Your task to perform on an android device: Add "panasonic triple a" to the cart on amazon Image 0: 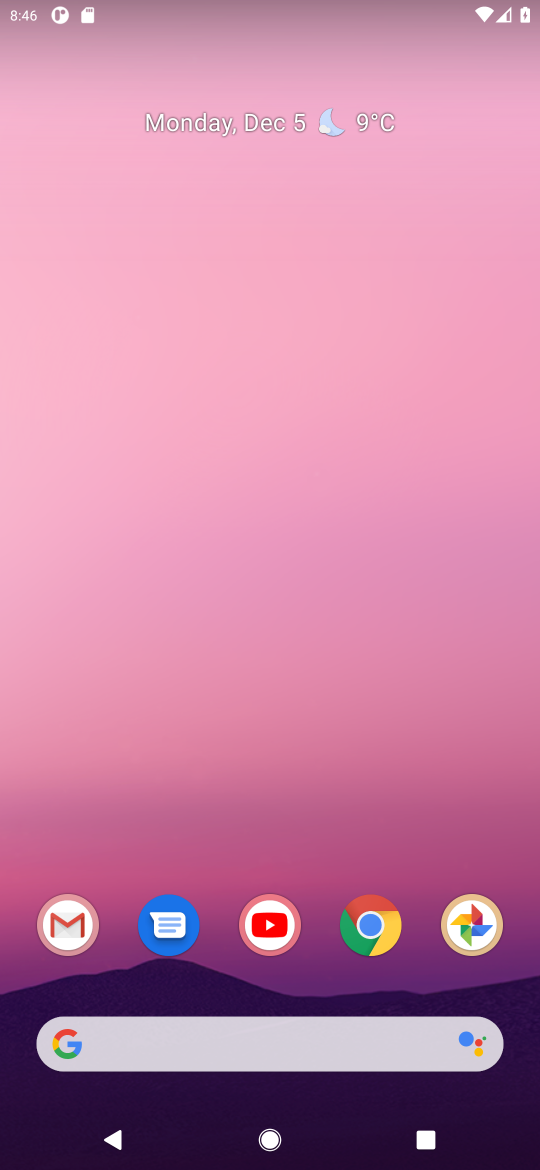
Step 0: click (363, 932)
Your task to perform on an android device: Add "panasonic triple a" to the cart on amazon Image 1: 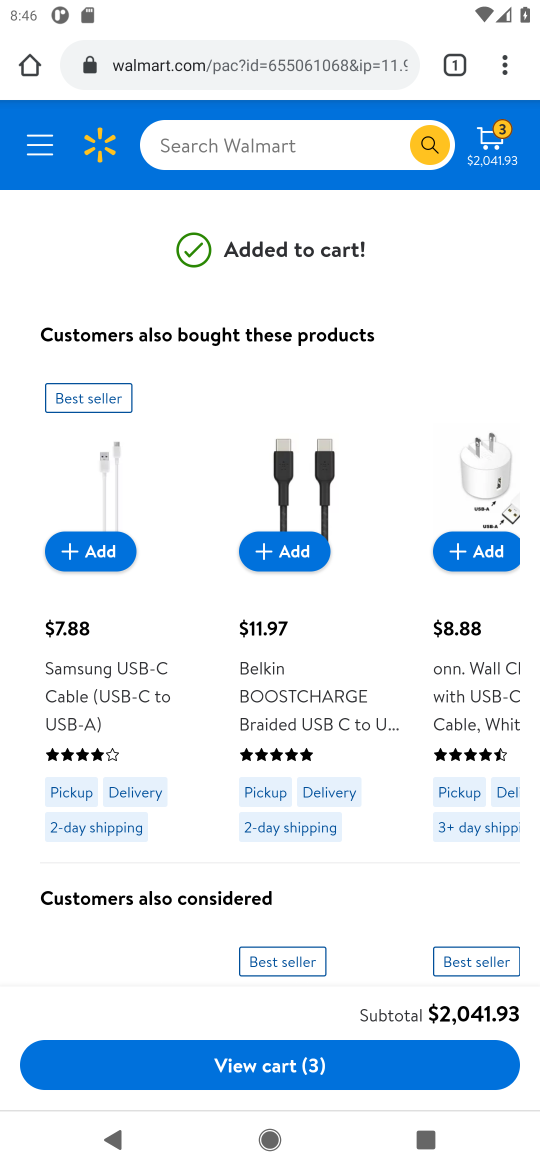
Step 1: click (234, 68)
Your task to perform on an android device: Add "panasonic triple a" to the cart on amazon Image 2: 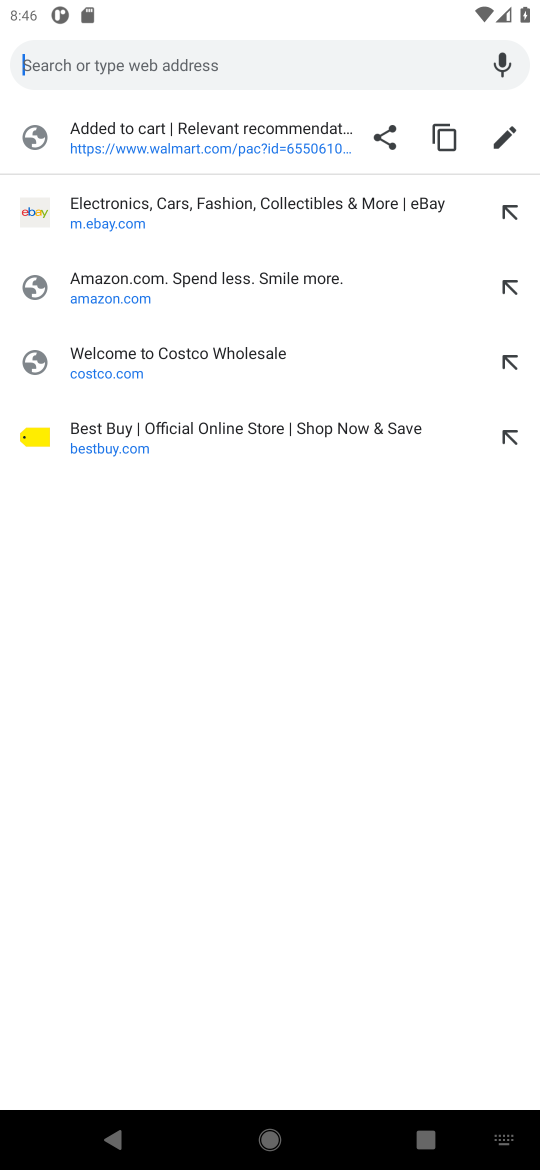
Step 2: click (102, 297)
Your task to perform on an android device: Add "panasonic triple a" to the cart on amazon Image 3: 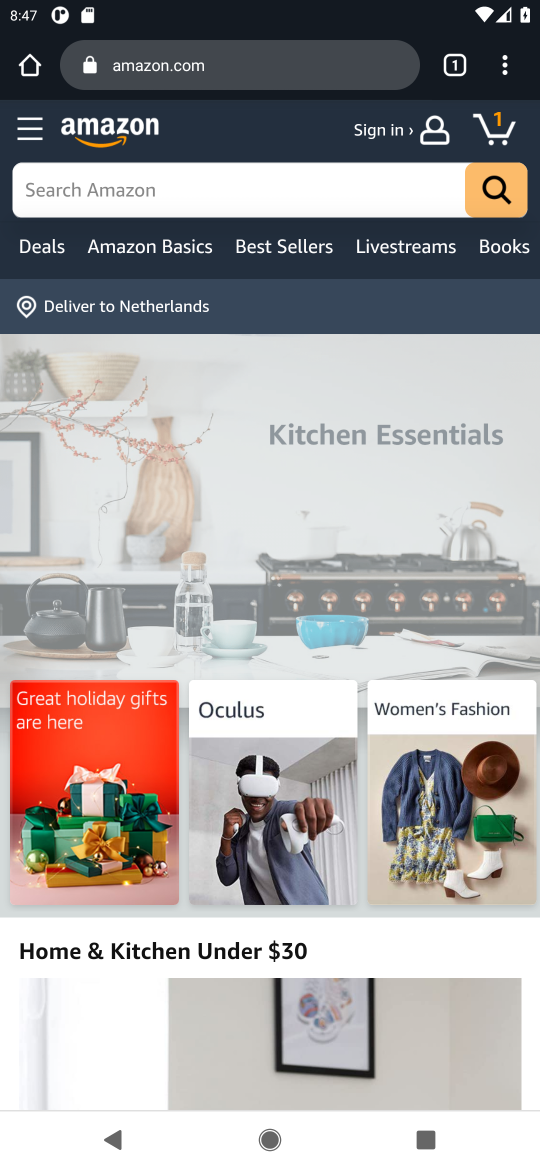
Step 3: click (79, 188)
Your task to perform on an android device: Add "panasonic triple a" to the cart on amazon Image 4: 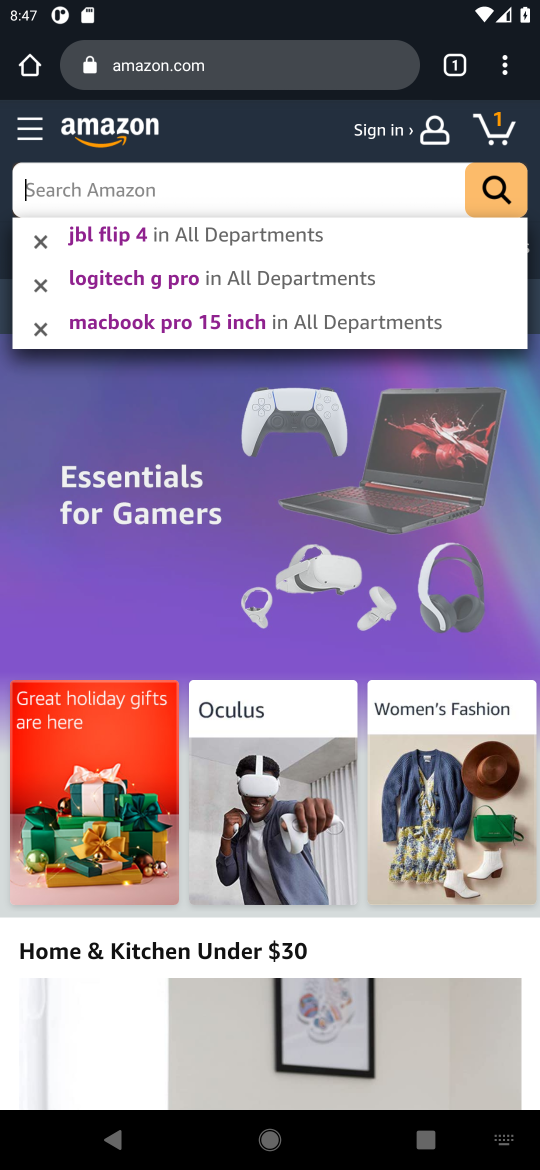
Step 4: type "panasonic triple a"
Your task to perform on an android device: Add "panasonic triple a" to the cart on amazon Image 5: 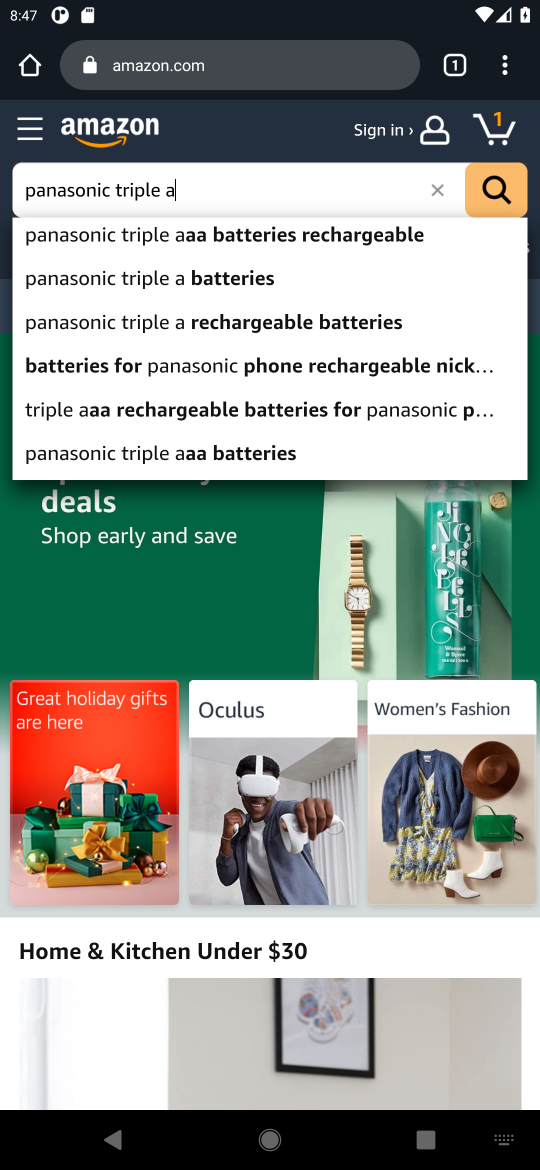
Step 5: click (207, 284)
Your task to perform on an android device: Add "panasonic triple a" to the cart on amazon Image 6: 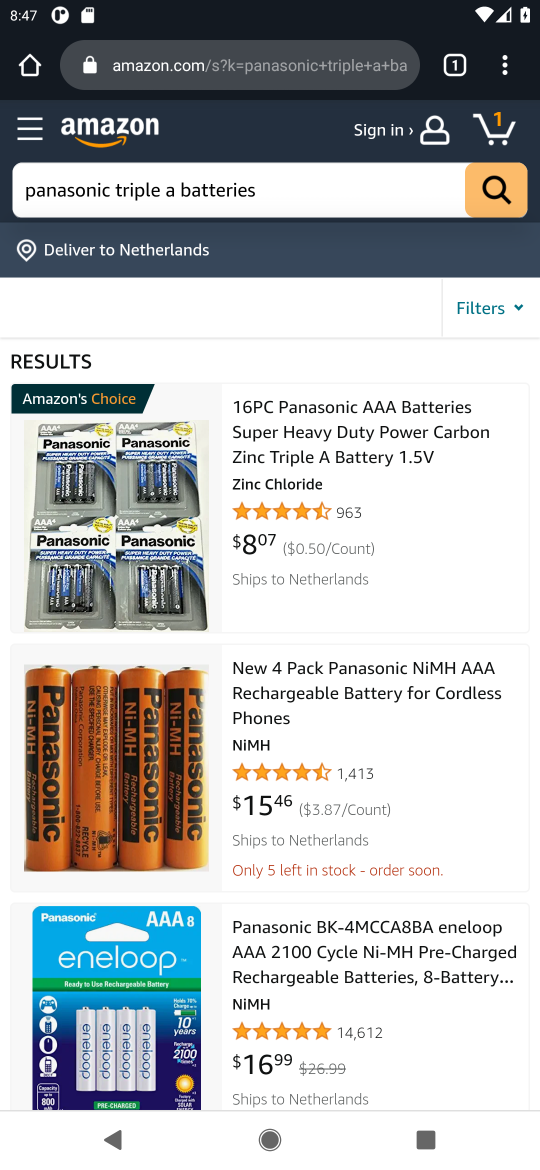
Step 6: click (266, 458)
Your task to perform on an android device: Add "panasonic triple a" to the cart on amazon Image 7: 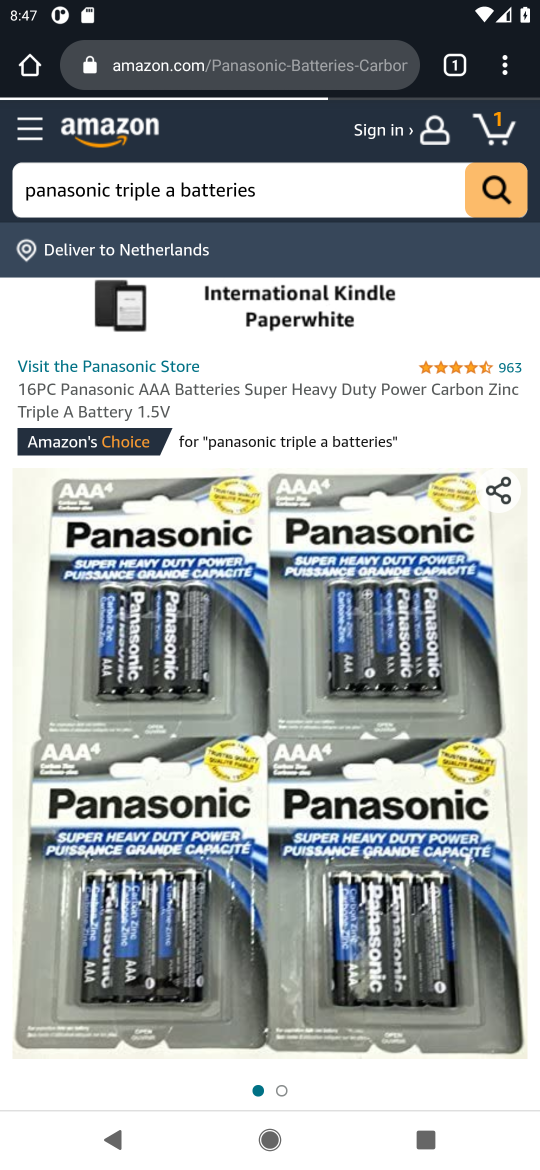
Step 7: drag from (264, 641) to (258, 362)
Your task to perform on an android device: Add "panasonic triple a" to the cart on amazon Image 8: 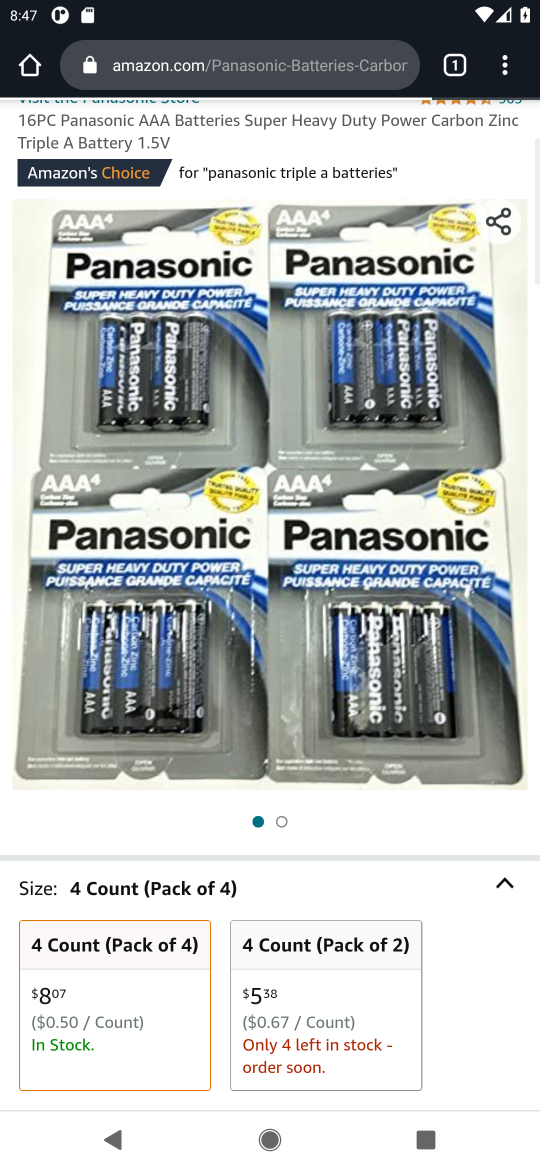
Step 8: drag from (268, 599) to (251, 296)
Your task to perform on an android device: Add "panasonic triple a" to the cart on amazon Image 9: 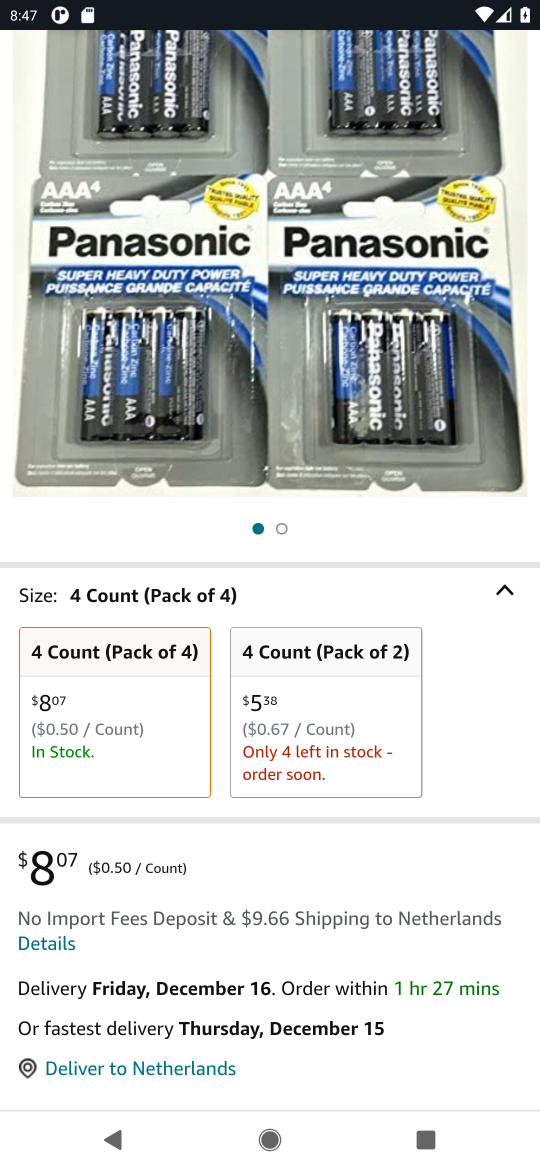
Step 9: drag from (228, 837) to (175, 385)
Your task to perform on an android device: Add "panasonic triple a" to the cart on amazon Image 10: 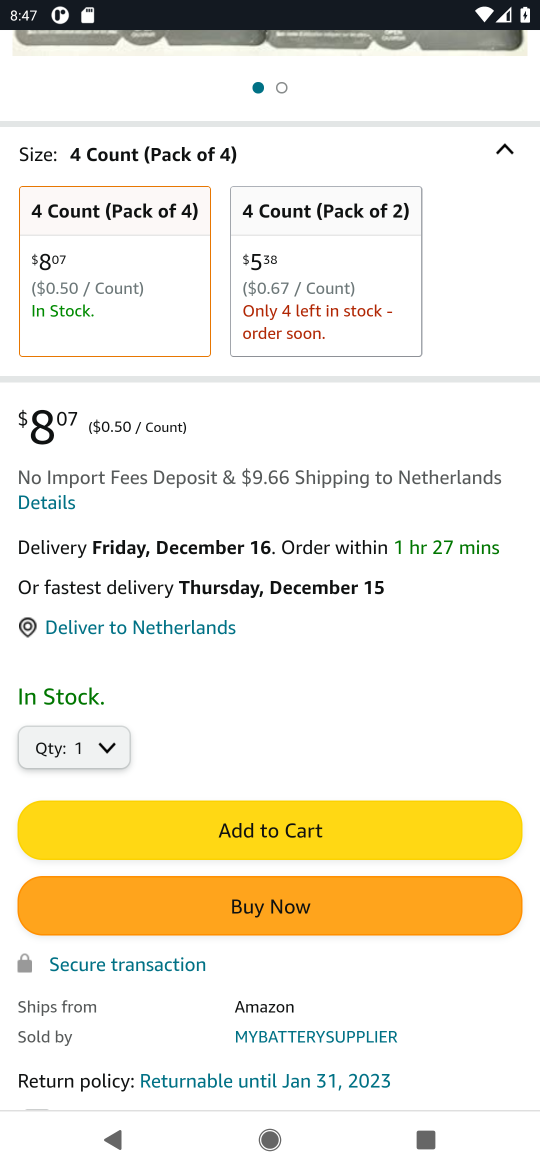
Step 10: click (207, 819)
Your task to perform on an android device: Add "panasonic triple a" to the cart on amazon Image 11: 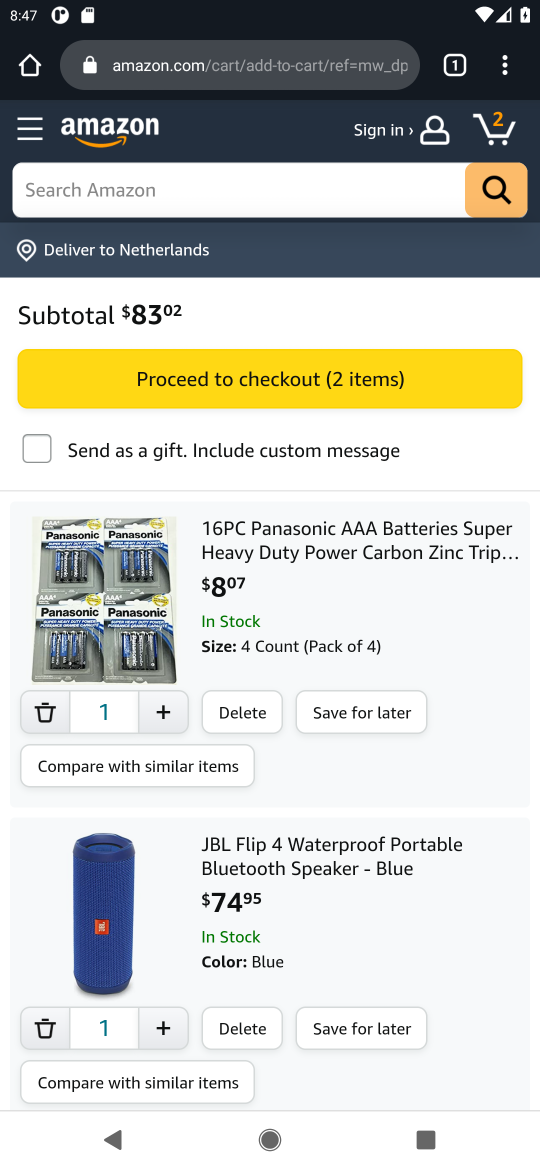
Step 11: task complete